Your task to perform on an android device: install app "Google Docs" Image 0: 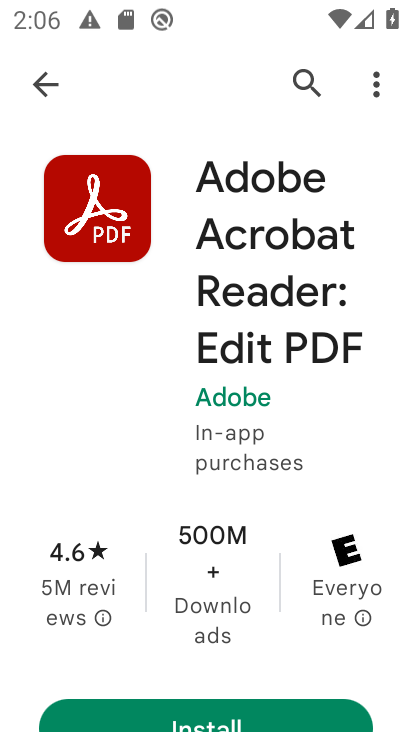
Step 0: press home button
Your task to perform on an android device: install app "Google Docs" Image 1: 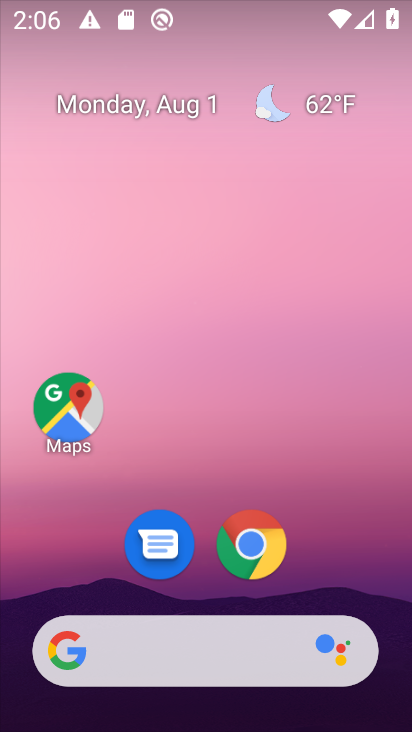
Step 1: drag from (391, 599) to (198, 38)
Your task to perform on an android device: install app "Google Docs" Image 2: 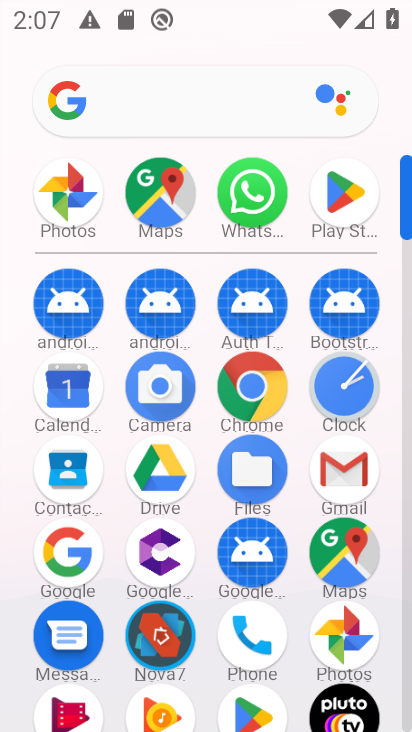
Step 2: click (354, 215)
Your task to perform on an android device: install app "Google Docs" Image 3: 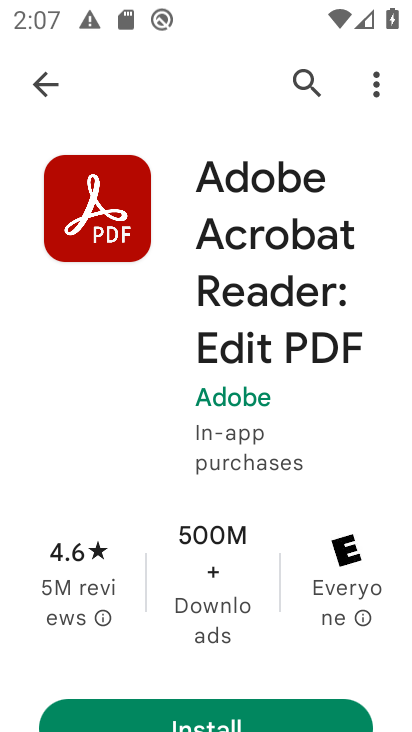
Step 3: press back button
Your task to perform on an android device: install app "Google Docs" Image 4: 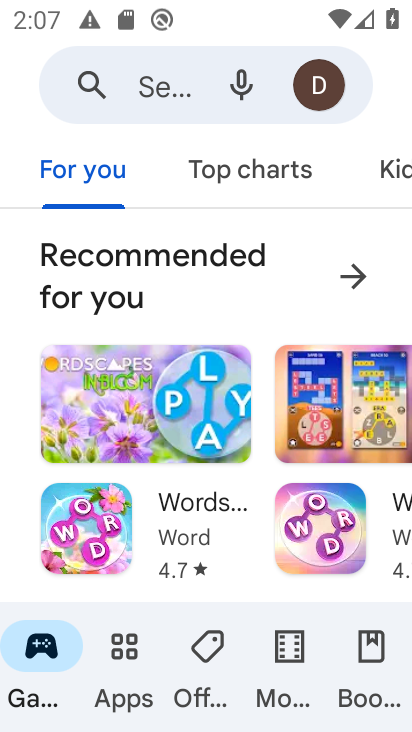
Step 4: click (145, 93)
Your task to perform on an android device: install app "Google Docs" Image 5: 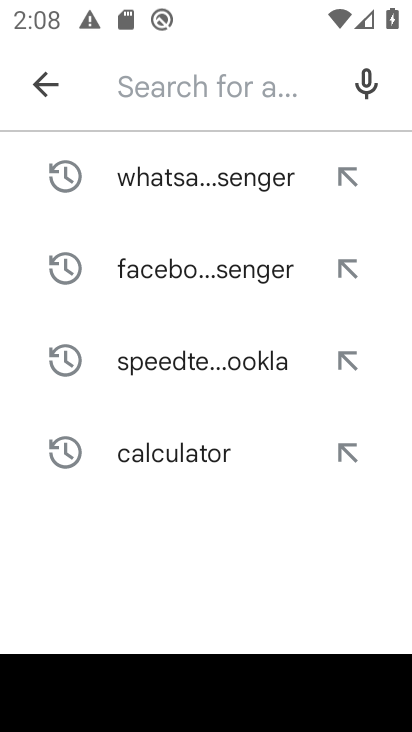
Step 5: type "Google Docs"
Your task to perform on an android device: install app "Google Docs" Image 6: 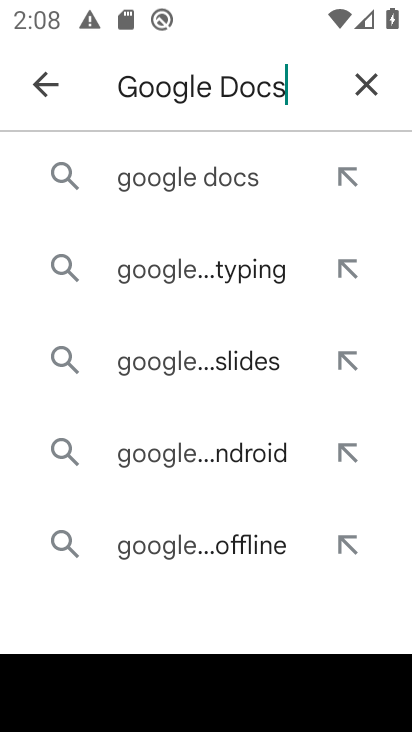
Step 6: click (134, 186)
Your task to perform on an android device: install app "Google Docs" Image 7: 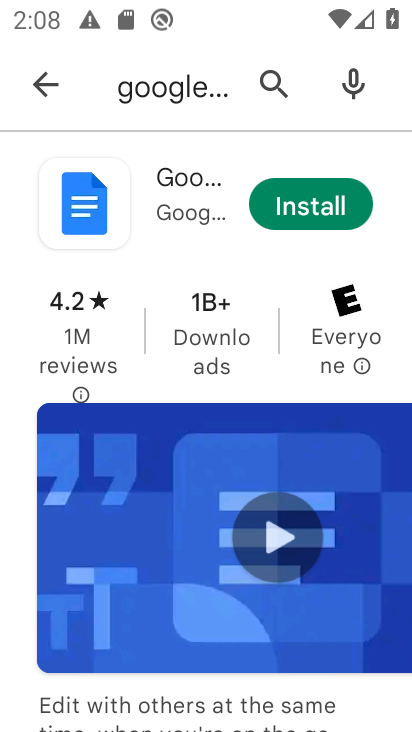
Step 7: click (315, 208)
Your task to perform on an android device: install app "Google Docs" Image 8: 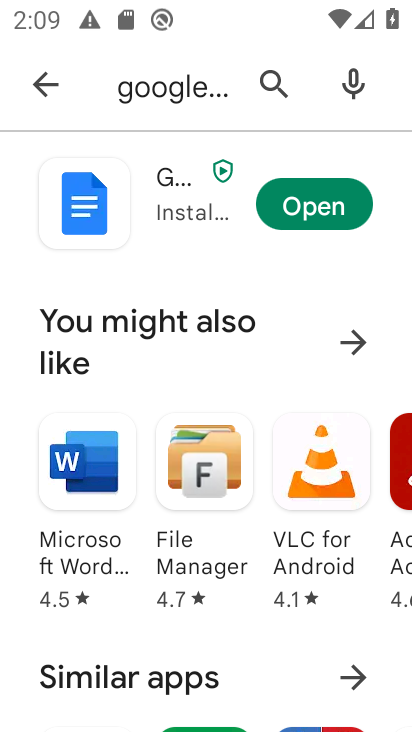
Step 8: task complete